Your task to perform on an android device: Open battery settings Image 0: 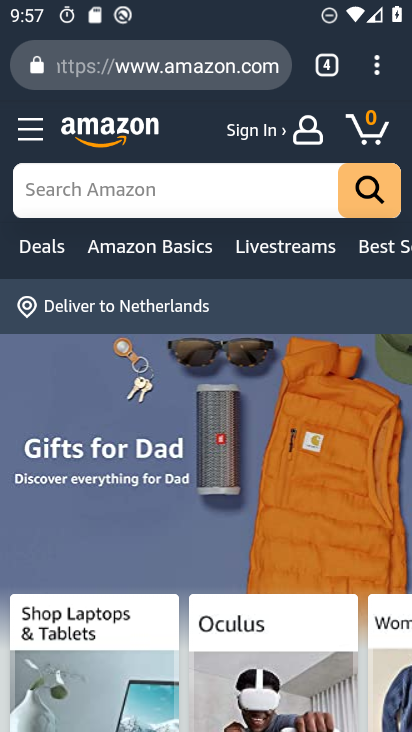
Step 0: press home button
Your task to perform on an android device: Open battery settings Image 1: 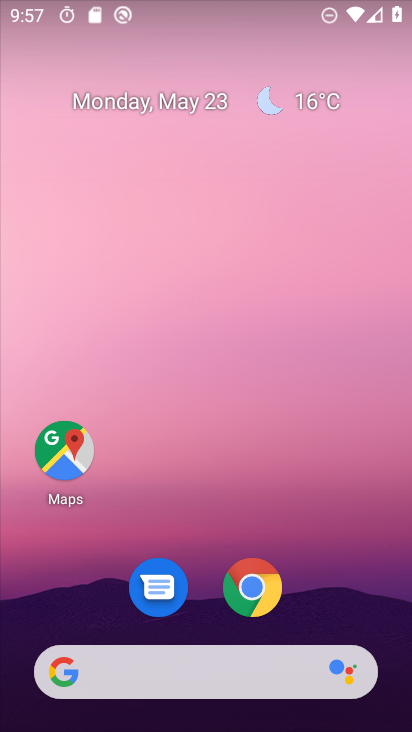
Step 1: drag from (173, 507) to (235, 32)
Your task to perform on an android device: Open battery settings Image 2: 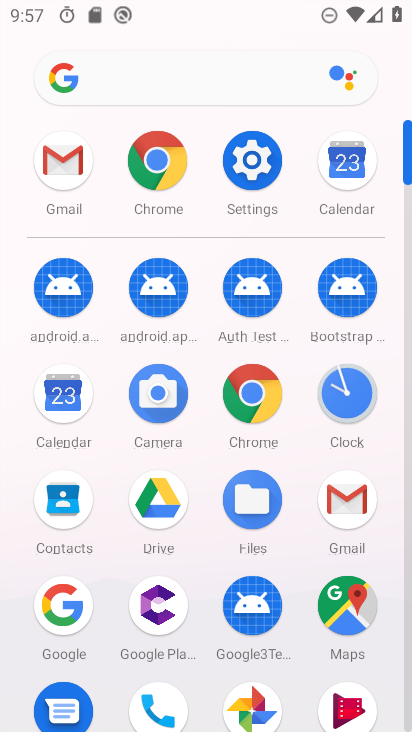
Step 2: click (243, 157)
Your task to perform on an android device: Open battery settings Image 3: 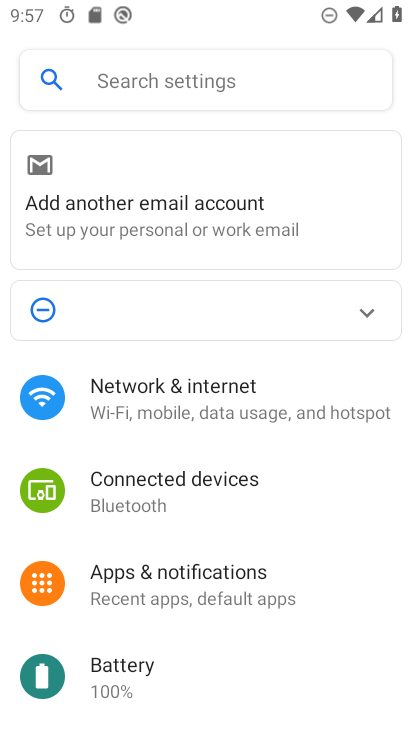
Step 3: click (142, 679)
Your task to perform on an android device: Open battery settings Image 4: 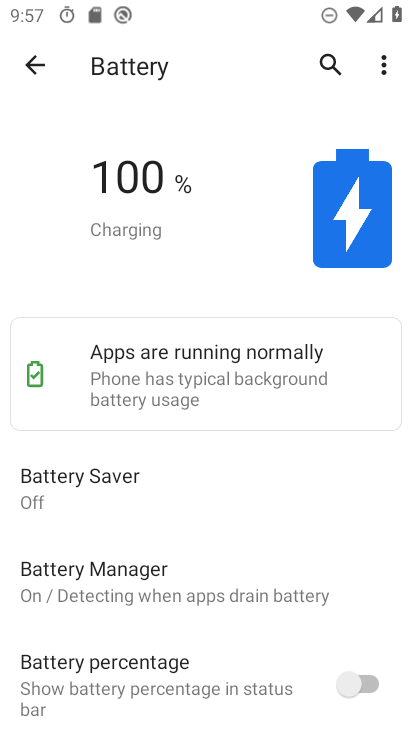
Step 4: task complete